Your task to perform on an android device: allow notifications from all sites in the chrome app Image 0: 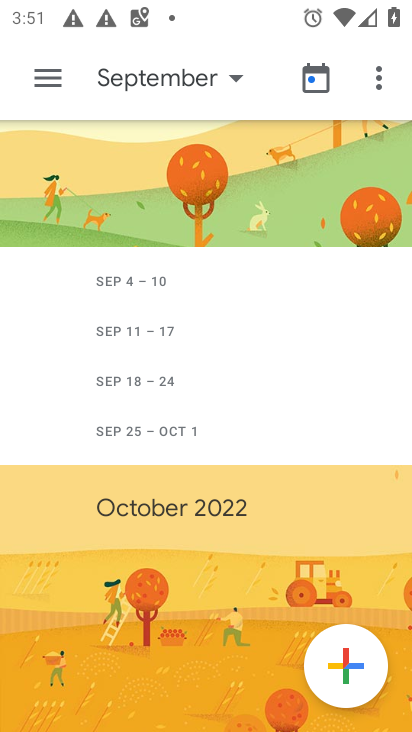
Step 0: press home button
Your task to perform on an android device: allow notifications from all sites in the chrome app Image 1: 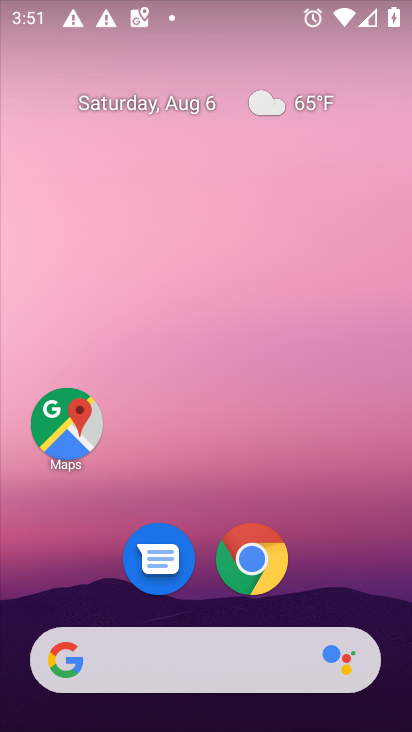
Step 1: click (249, 567)
Your task to perform on an android device: allow notifications from all sites in the chrome app Image 2: 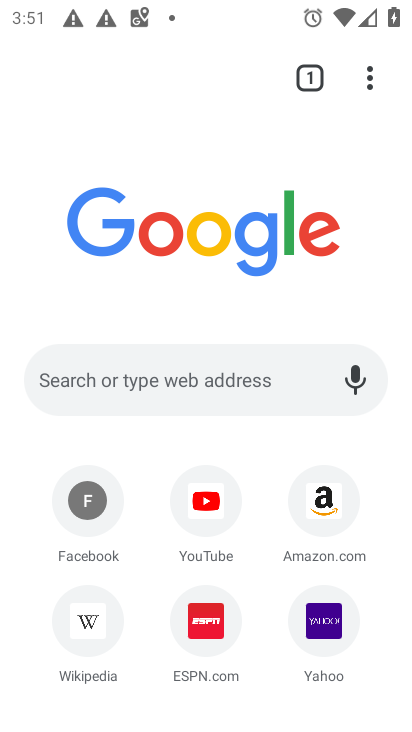
Step 2: click (368, 83)
Your task to perform on an android device: allow notifications from all sites in the chrome app Image 3: 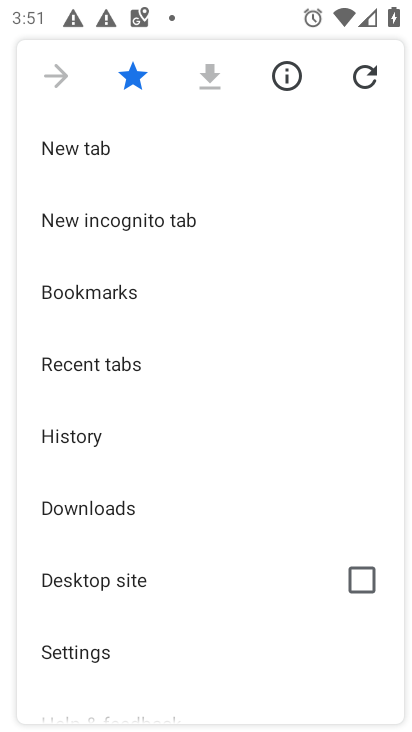
Step 3: click (126, 652)
Your task to perform on an android device: allow notifications from all sites in the chrome app Image 4: 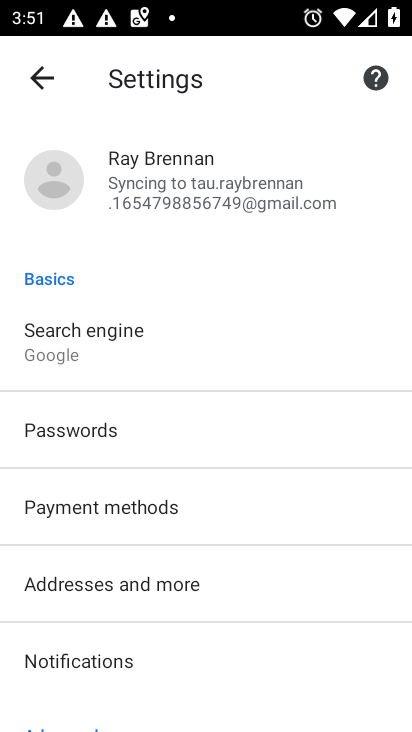
Step 4: click (126, 652)
Your task to perform on an android device: allow notifications from all sites in the chrome app Image 5: 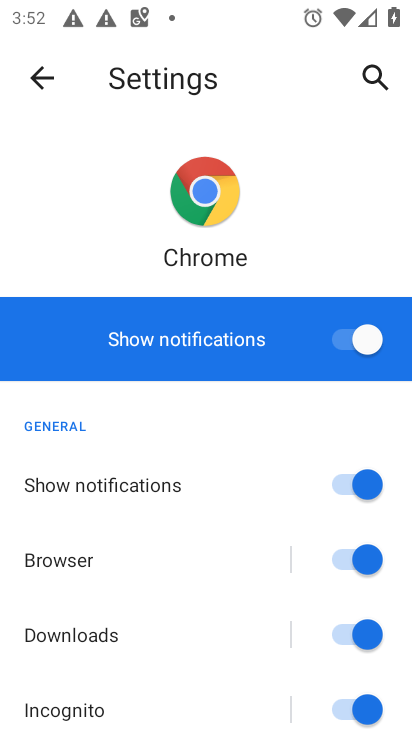
Step 5: task complete